Your task to perform on an android device: Open Google Image 0: 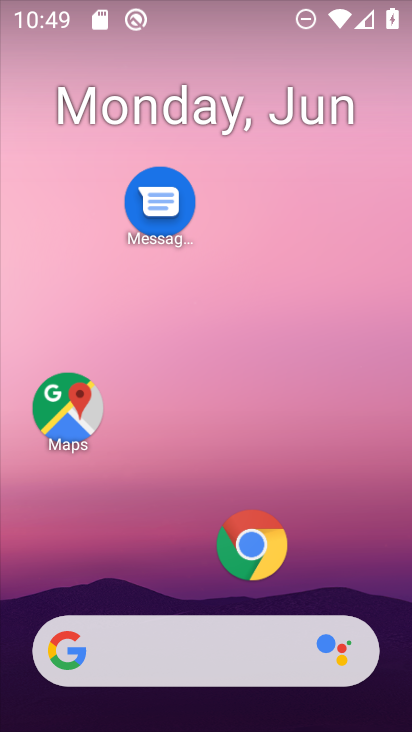
Step 0: drag from (189, 580) to (247, 162)
Your task to perform on an android device: Open Google Image 1: 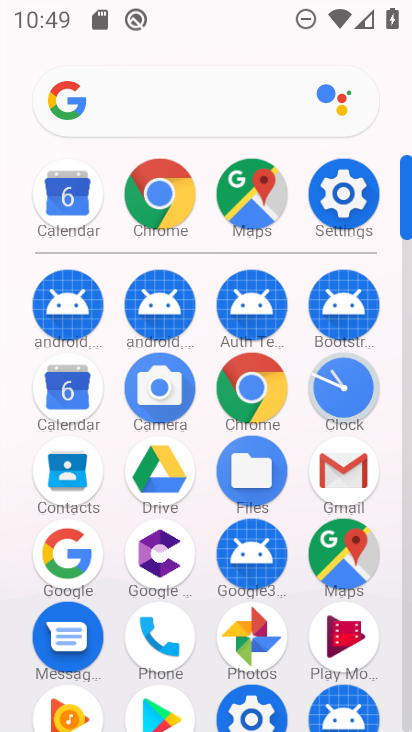
Step 1: click (73, 554)
Your task to perform on an android device: Open Google Image 2: 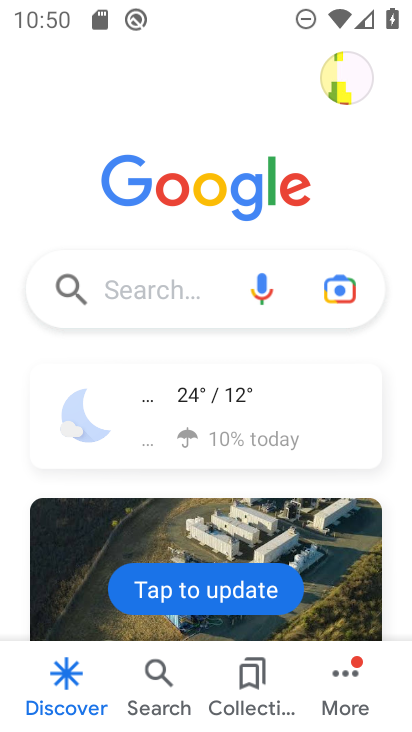
Step 2: task complete